Your task to perform on an android device: Open the calendar app, open the side menu, and click the "Day" option Image 0: 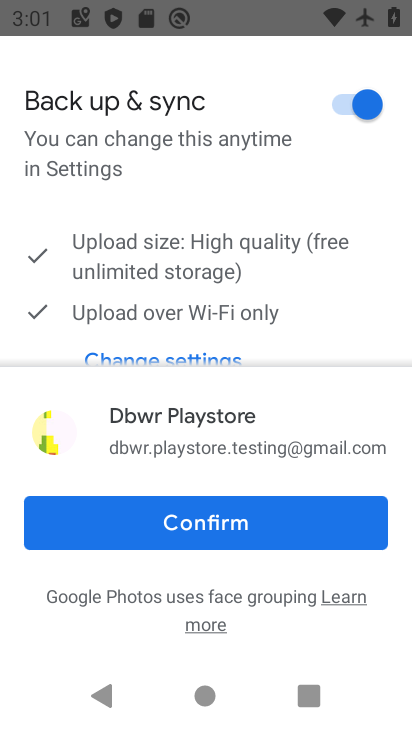
Step 0: press home button
Your task to perform on an android device: Open the calendar app, open the side menu, and click the "Day" option Image 1: 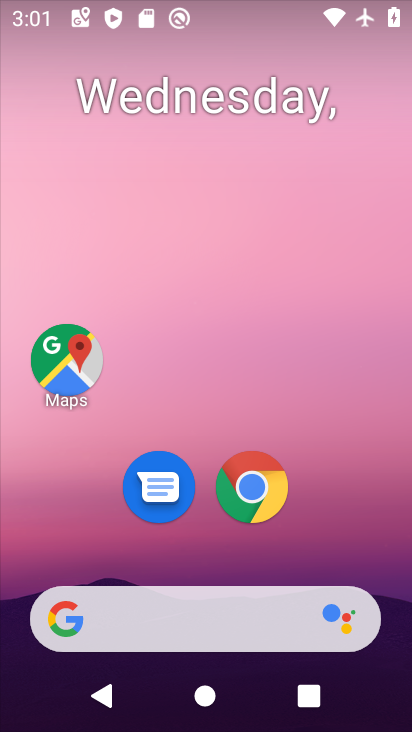
Step 1: drag from (296, 558) to (226, 0)
Your task to perform on an android device: Open the calendar app, open the side menu, and click the "Day" option Image 2: 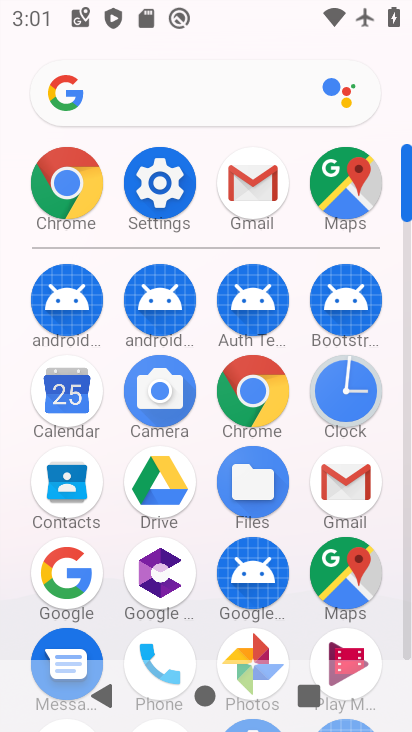
Step 2: click (37, 417)
Your task to perform on an android device: Open the calendar app, open the side menu, and click the "Day" option Image 3: 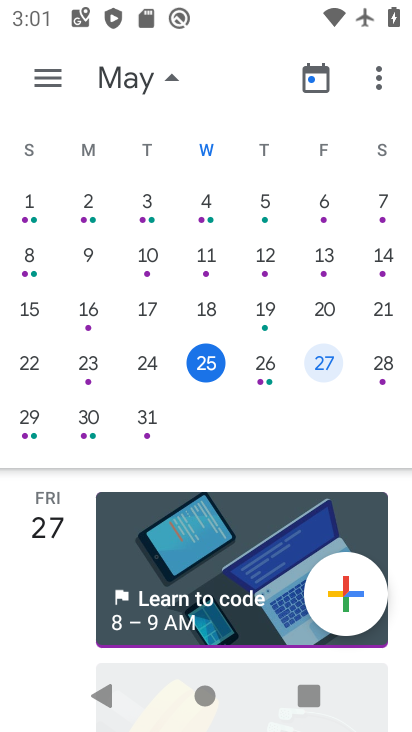
Step 3: click (66, 73)
Your task to perform on an android device: Open the calendar app, open the side menu, and click the "Day" option Image 4: 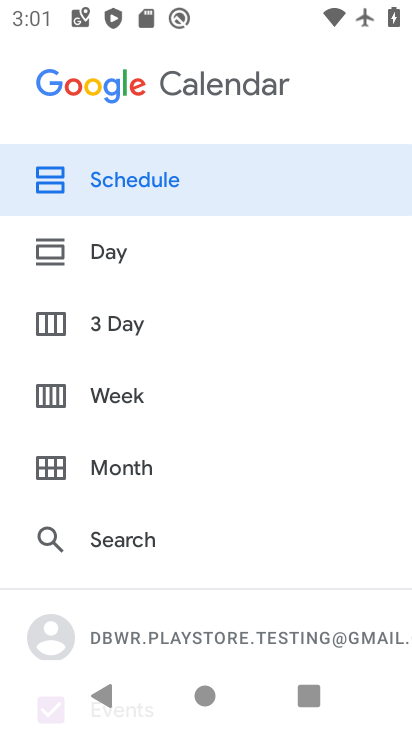
Step 4: click (77, 259)
Your task to perform on an android device: Open the calendar app, open the side menu, and click the "Day" option Image 5: 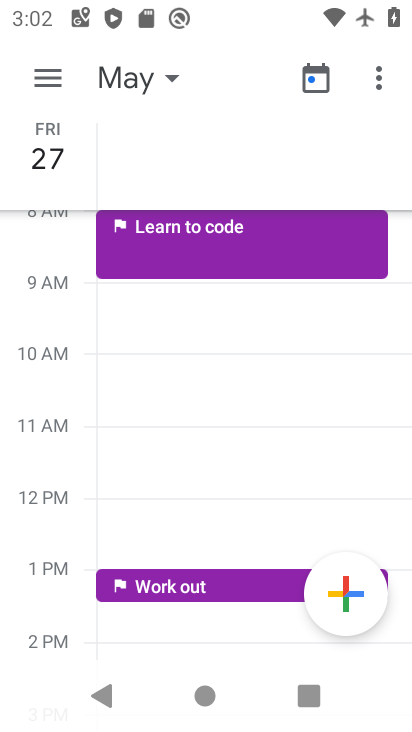
Step 5: task complete